Your task to perform on an android device: Do I have any events tomorrow? Image 0: 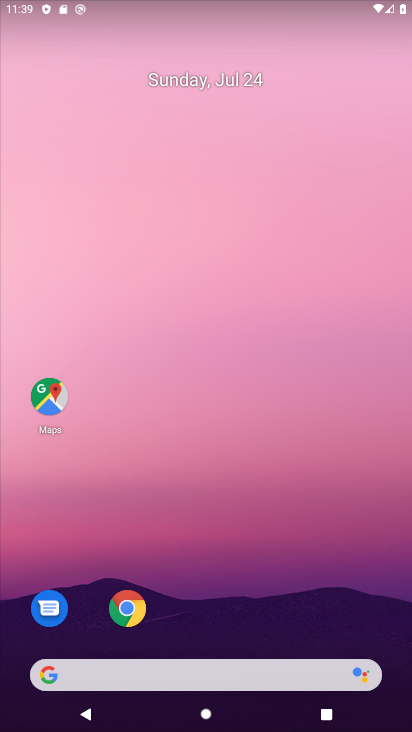
Step 0: drag from (193, 680) to (331, 118)
Your task to perform on an android device: Do I have any events tomorrow? Image 1: 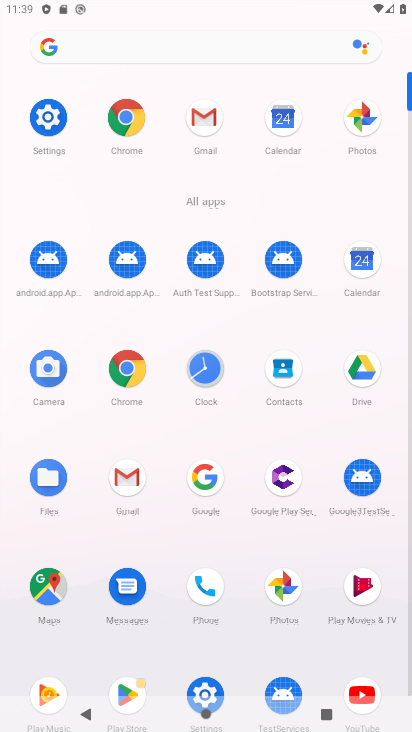
Step 1: click (357, 284)
Your task to perform on an android device: Do I have any events tomorrow? Image 2: 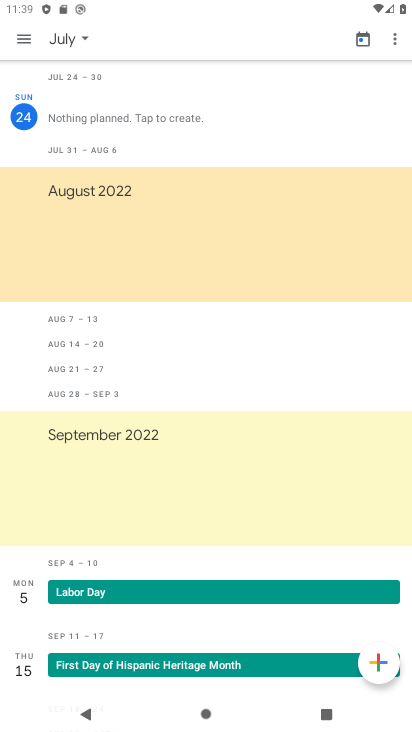
Step 2: drag from (128, 585) to (180, 423)
Your task to perform on an android device: Do I have any events tomorrow? Image 3: 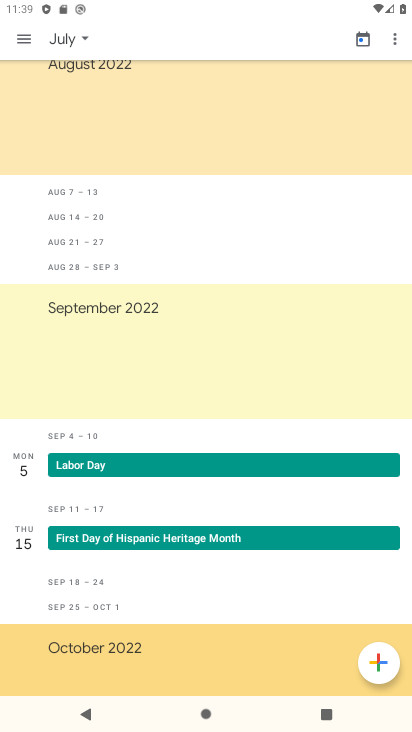
Step 3: drag from (174, 282) to (150, 612)
Your task to perform on an android device: Do I have any events tomorrow? Image 4: 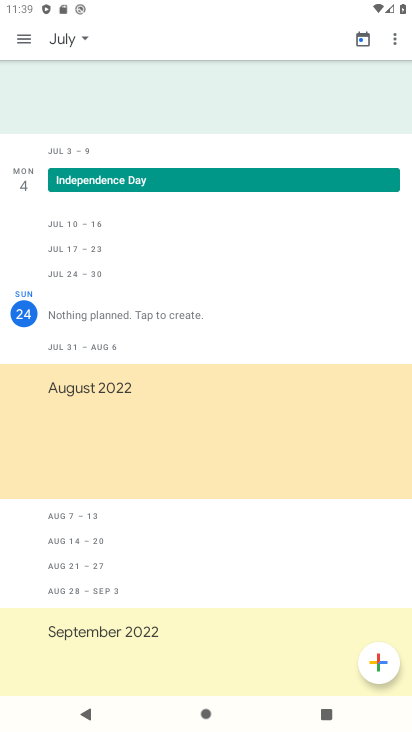
Step 4: drag from (182, 251) to (184, 597)
Your task to perform on an android device: Do I have any events tomorrow? Image 5: 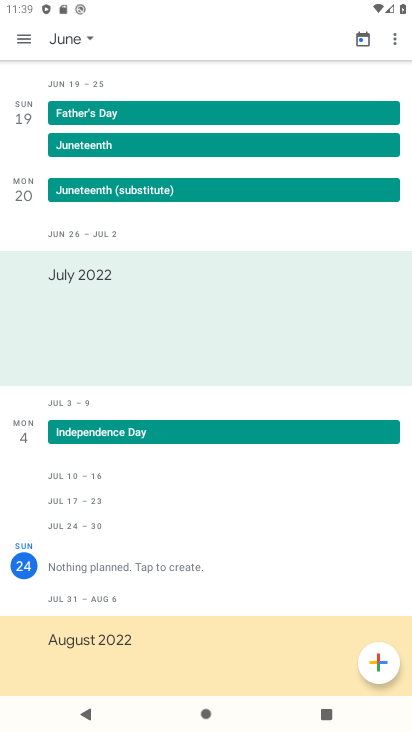
Step 5: drag from (210, 246) to (189, 488)
Your task to perform on an android device: Do I have any events tomorrow? Image 6: 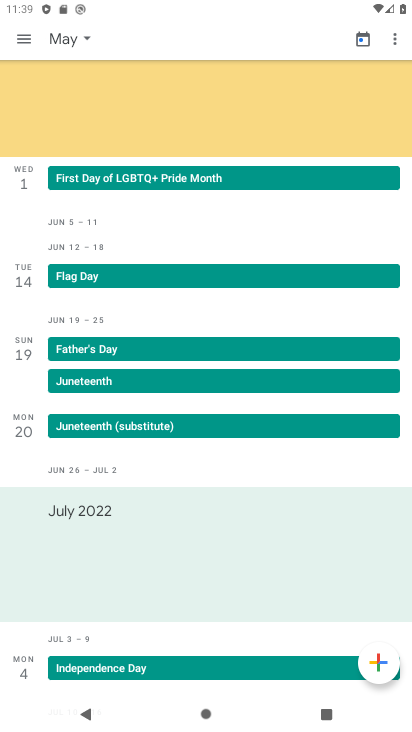
Step 6: click (75, 43)
Your task to perform on an android device: Do I have any events tomorrow? Image 7: 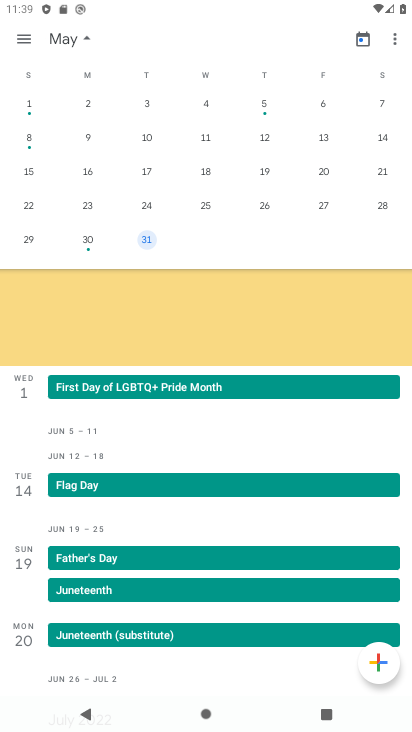
Step 7: drag from (308, 177) to (8, 169)
Your task to perform on an android device: Do I have any events tomorrow? Image 8: 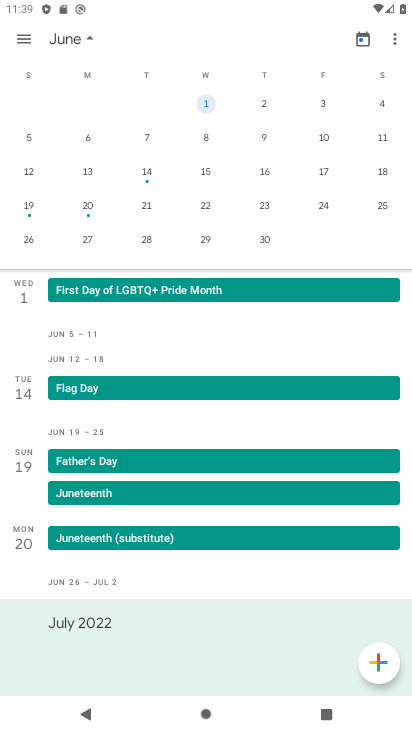
Step 8: click (25, 250)
Your task to perform on an android device: Do I have any events tomorrow? Image 9: 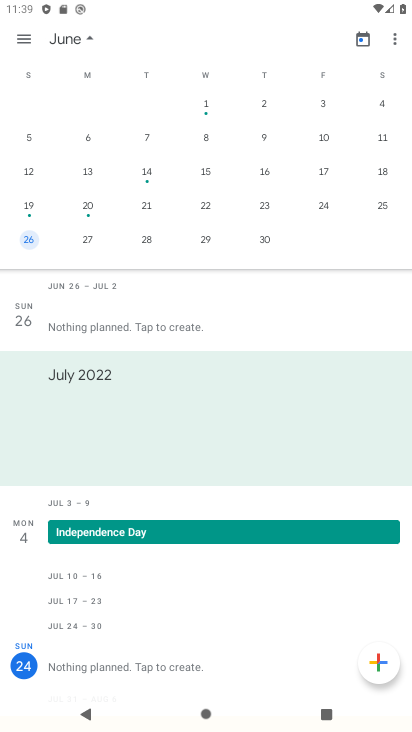
Step 9: task complete